Your task to perform on an android device: Go to display settings Image 0: 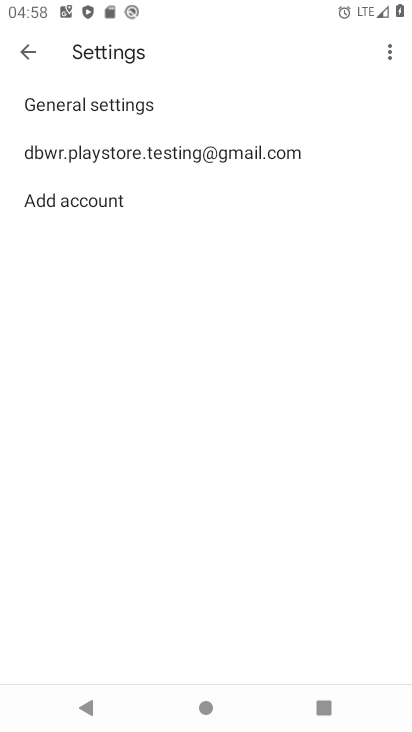
Step 0: press home button
Your task to perform on an android device: Go to display settings Image 1: 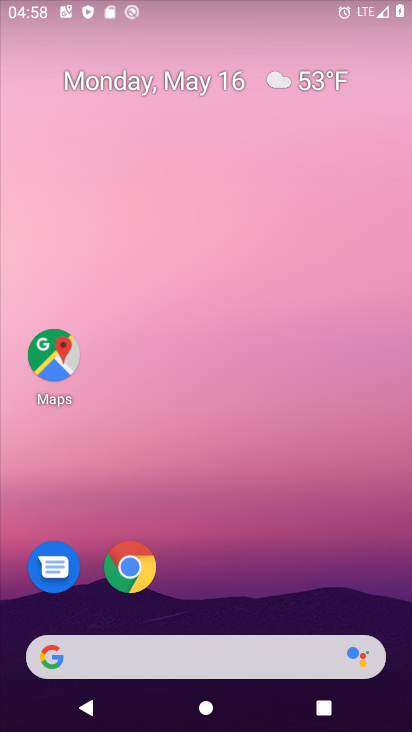
Step 1: drag from (284, 655) to (333, 0)
Your task to perform on an android device: Go to display settings Image 2: 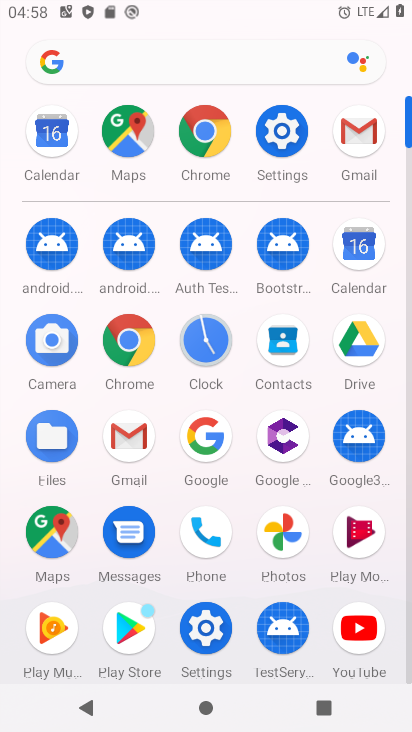
Step 2: click (271, 144)
Your task to perform on an android device: Go to display settings Image 3: 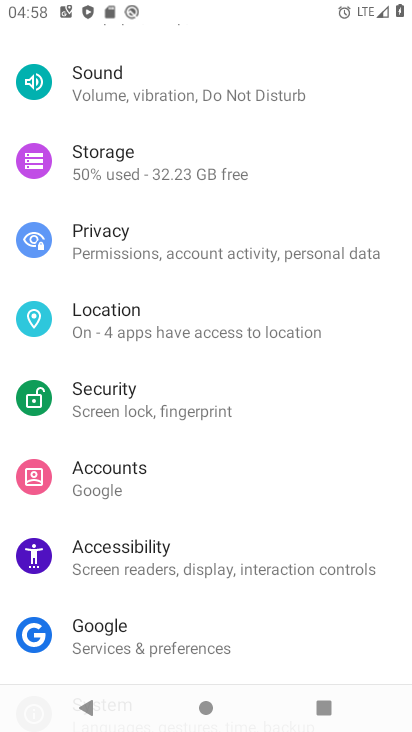
Step 3: drag from (170, 163) to (187, 633)
Your task to perform on an android device: Go to display settings Image 4: 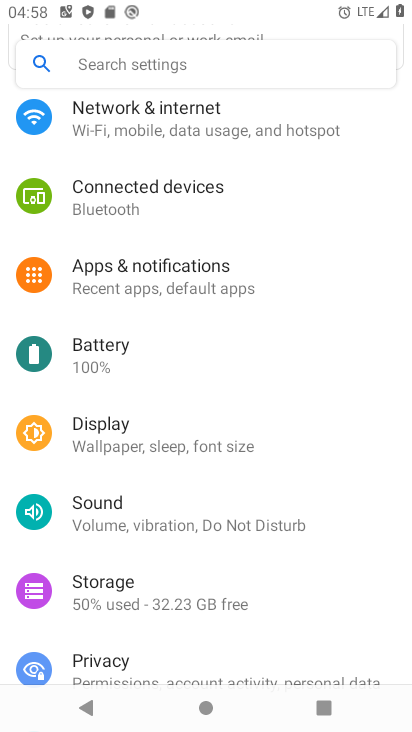
Step 4: click (158, 440)
Your task to perform on an android device: Go to display settings Image 5: 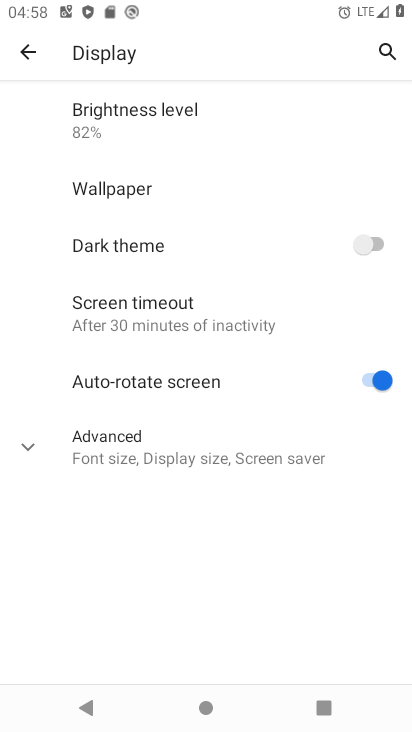
Step 5: task complete